Your task to perform on an android device: toggle improve location accuracy Image 0: 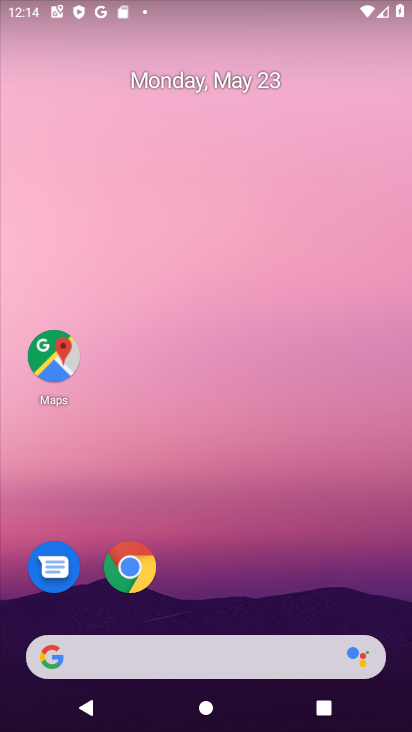
Step 0: drag from (225, 589) to (240, 113)
Your task to perform on an android device: toggle improve location accuracy Image 1: 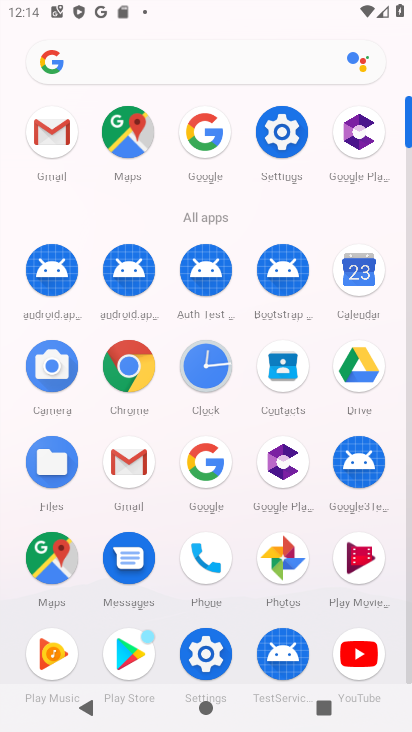
Step 1: click (281, 140)
Your task to perform on an android device: toggle improve location accuracy Image 2: 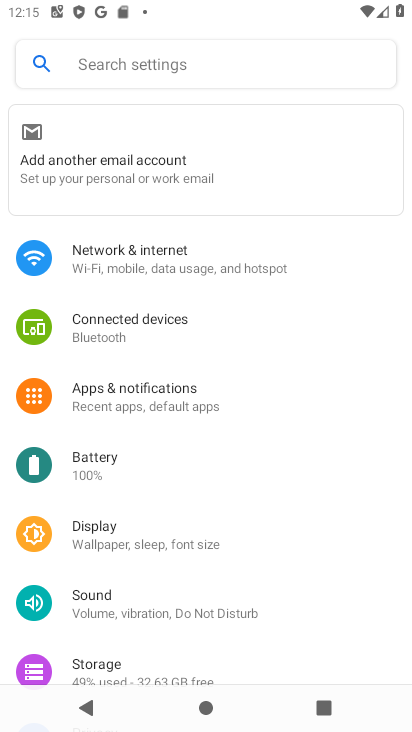
Step 2: drag from (194, 654) to (207, 177)
Your task to perform on an android device: toggle improve location accuracy Image 3: 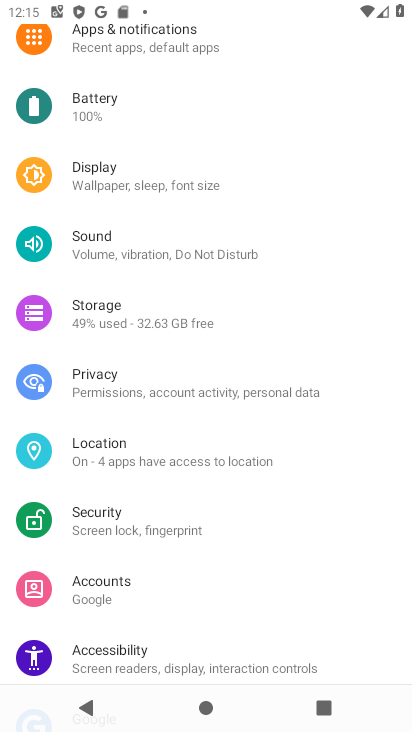
Step 3: click (203, 449)
Your task to perform on an android device: toggle improve location accuracy Image 4: 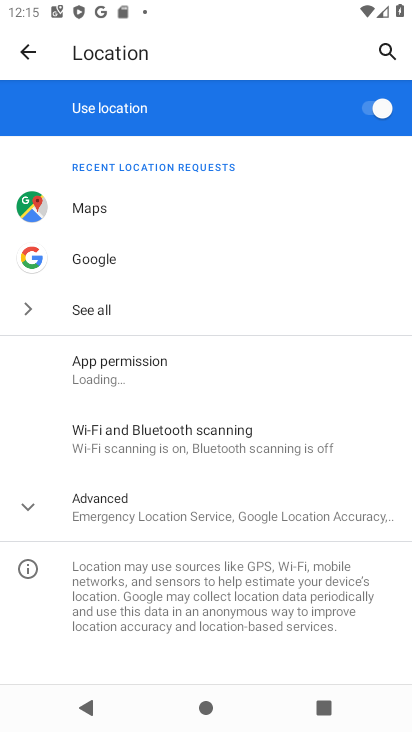
Step 4: click (217, 502)
Your task to perform on an android device: toggle improve location accuracy Image 5: 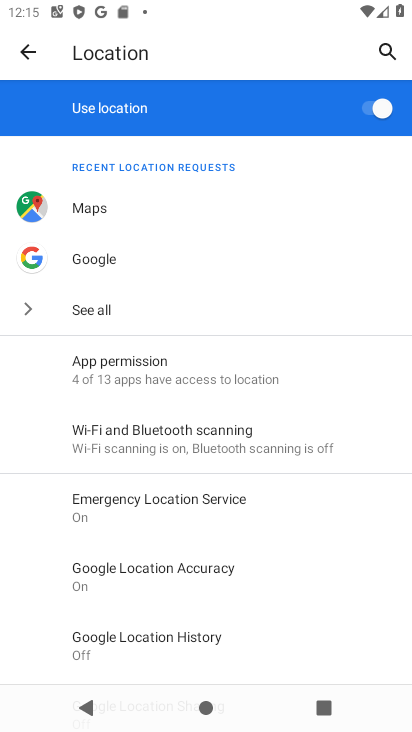
Step 5: click (260, 583)
Your task to perform on an android device: toggle improve location accuracy Image 6: 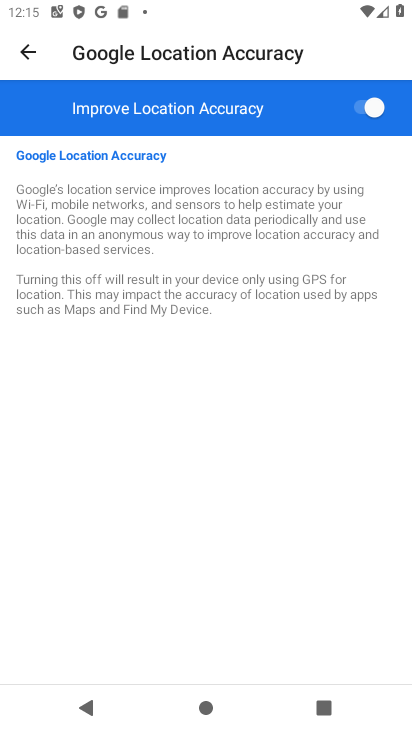
Step 6: click (368, 112)
Your task to perform on an android device: toggle improve location accuracy Image 7: 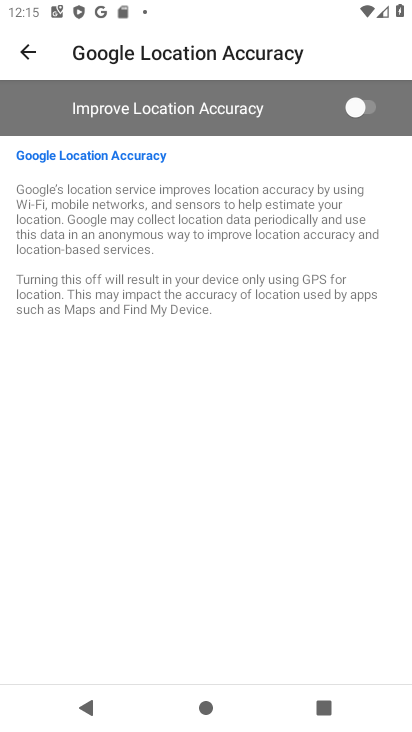
Step 7: task complete